Your task to perform on an android device: Go to Google Image 0: 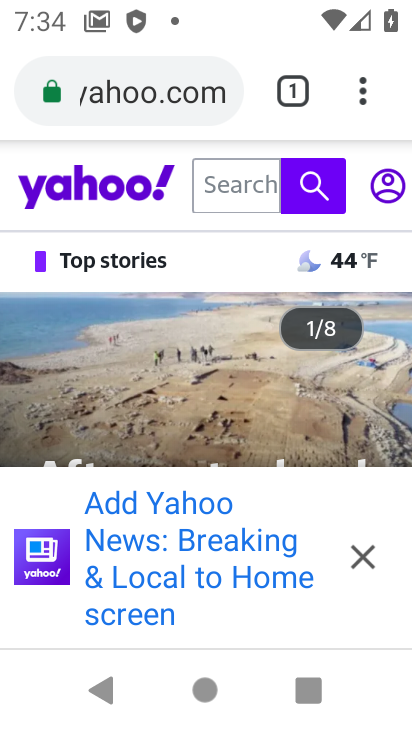
Step 0: click (361, 97)
Your task to perform on an android device: Go to Google Image 1: 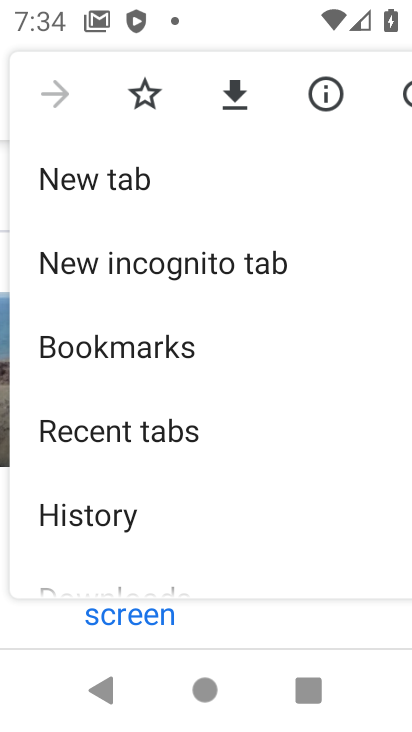
Step 1: click (156, 170)
Your task to perform on an android device: Go to Google Image 2: 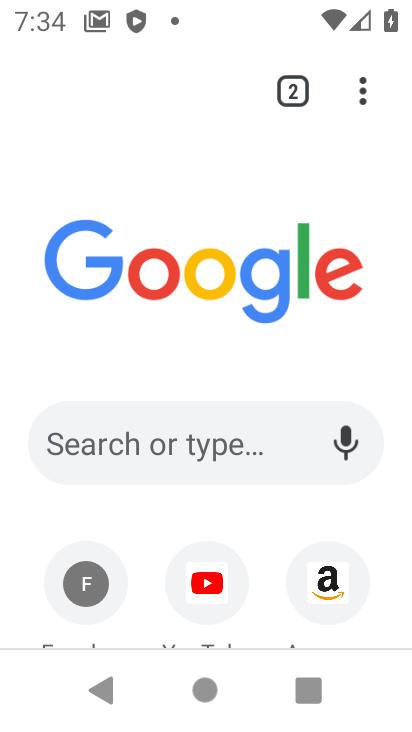
Step 2: click (98, 424)
Your task to perform on an android device: Go to Google Image 3: 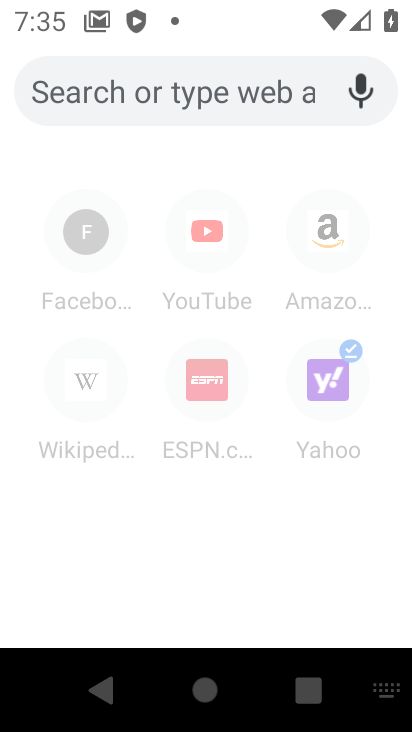
Step 3: type "google.com"
Your task to perform on an android device: Go to Google Image 4: 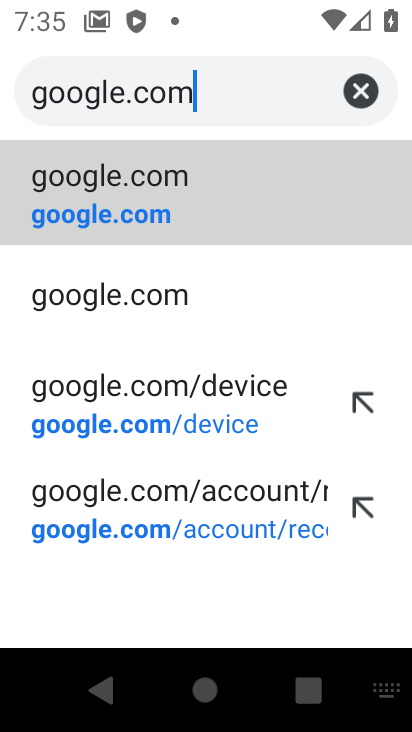
Step 4: click (220, 194)
Your task to perform on an android device: Go to Google Image 5: 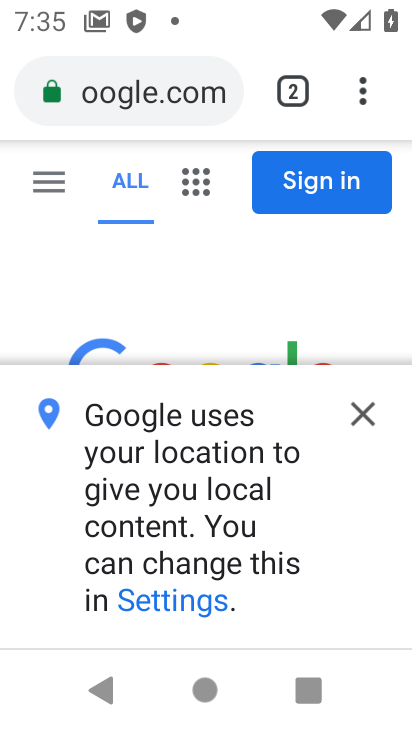
Step 5: task complete